Your task to perform on an android device: Search for bose soundsport free on costco.com, select the first entry, and add it to the cart. Image 0: 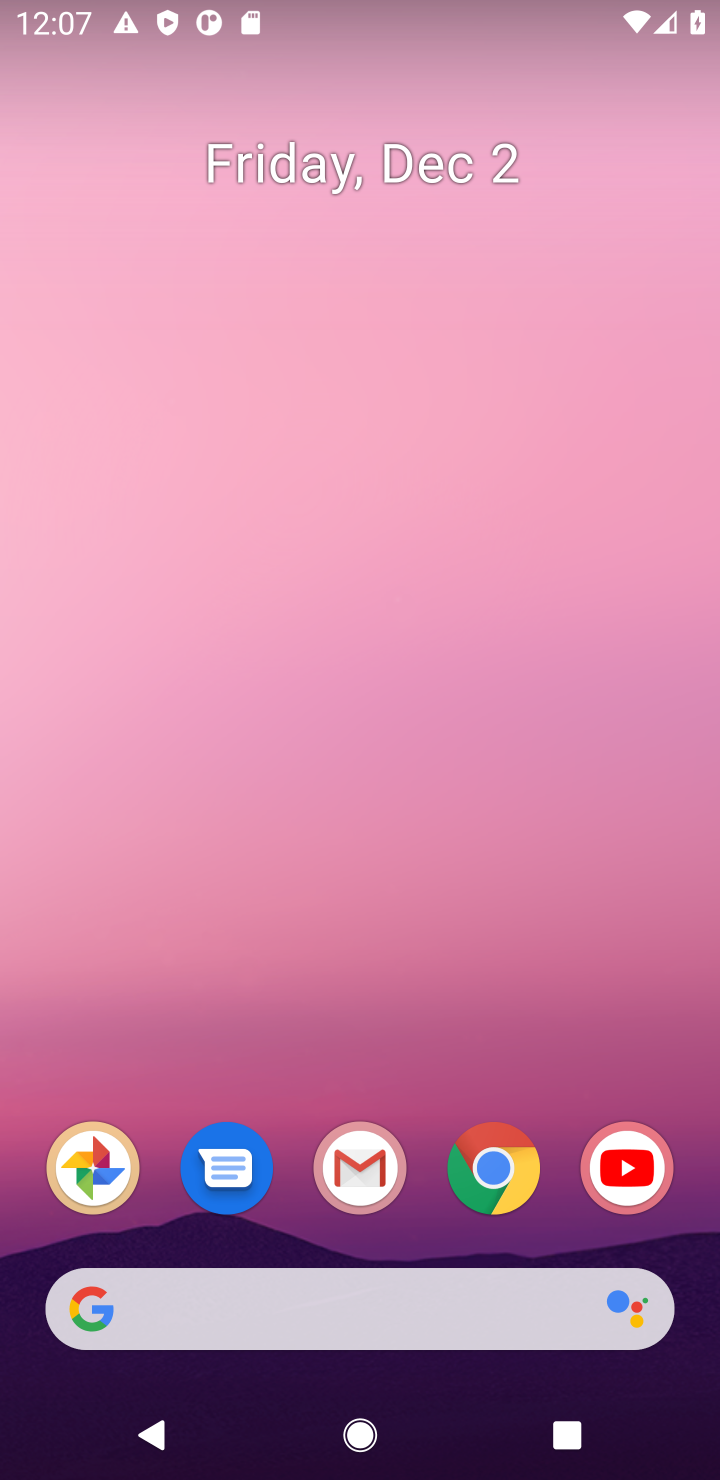
Step 0: click (94, 1316)
Your task to perform on an android device: Search for bose soundsport free on costco.com, select the first entry, and add it to the cart. Image 1: 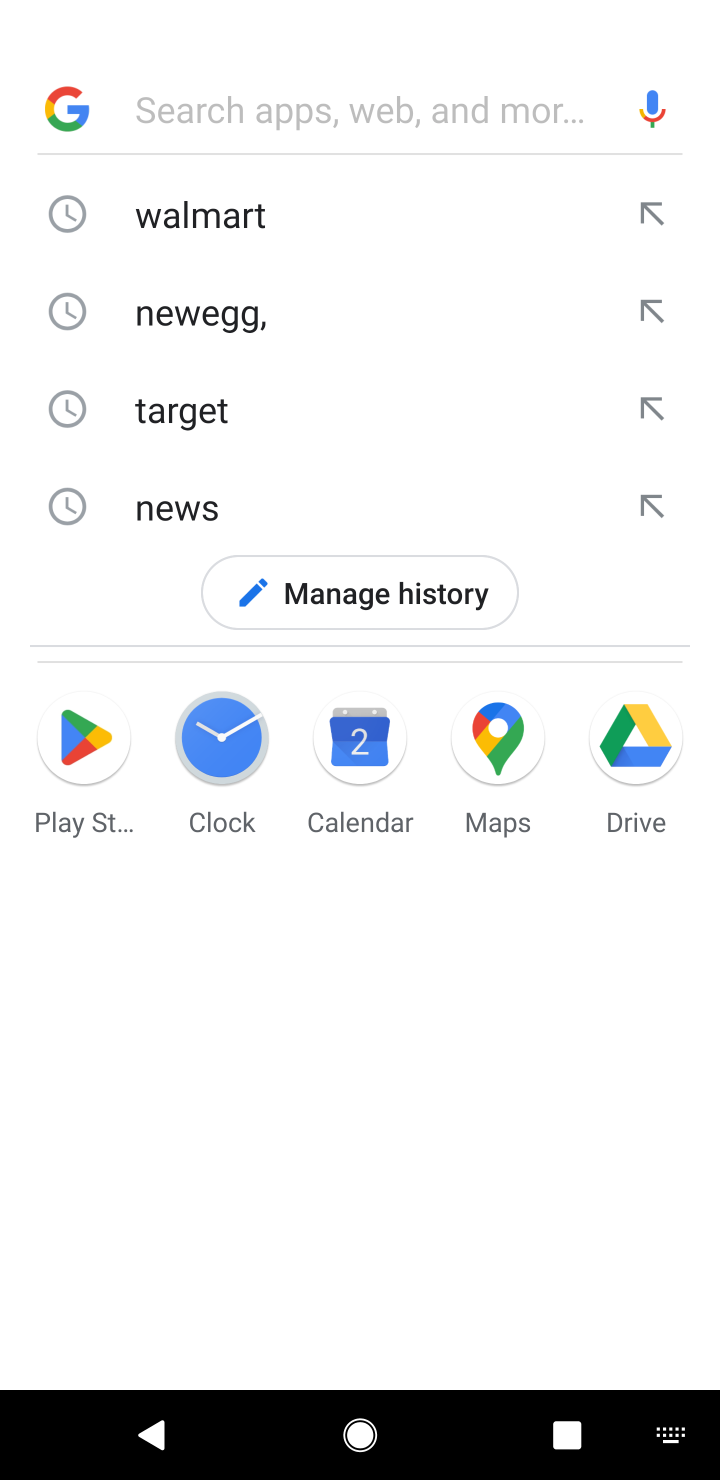
Step 1: click (398, 92)
Your task to perform on an android device: Search for bose soundsport free on costco.com, select the first entry, and add it to the cart. Image 2: 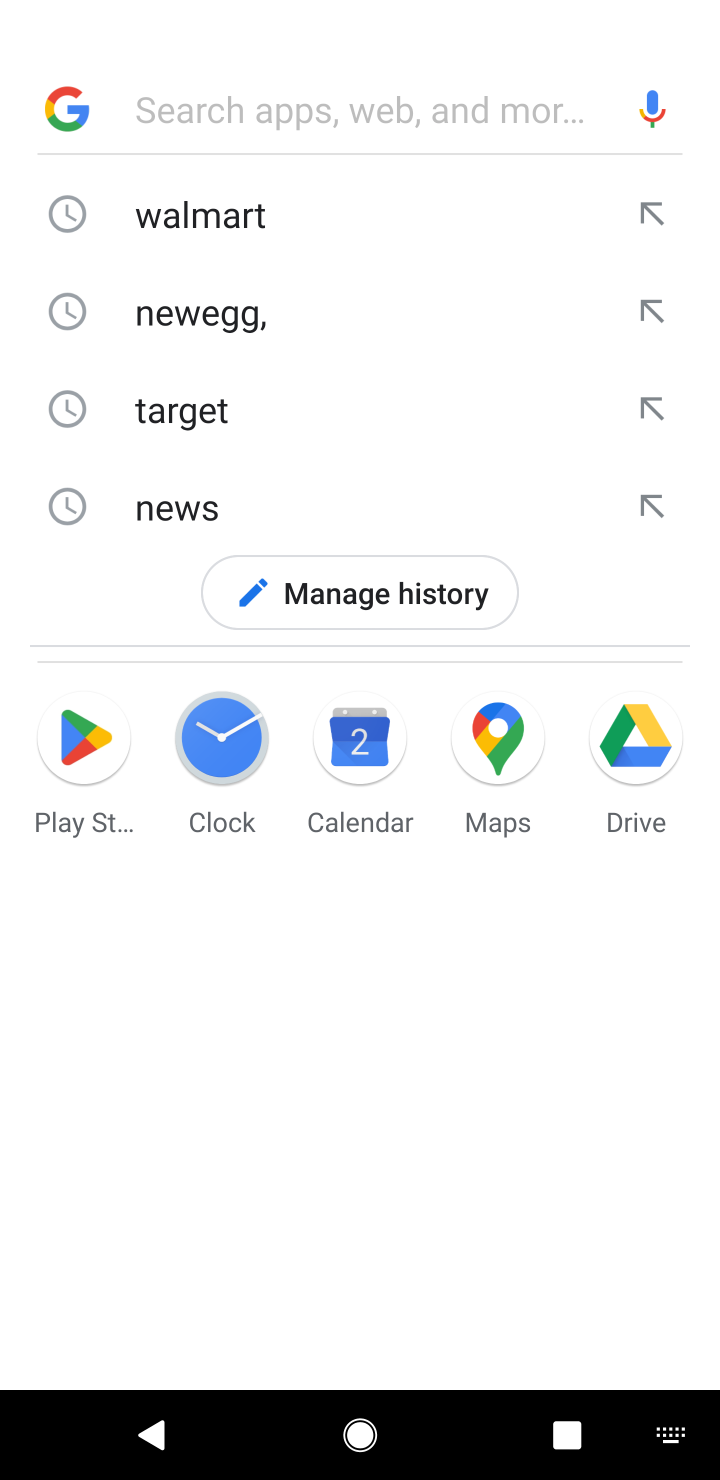
Step 2: type "costco.com"
Your task to perform on an android device: Search for bose soundsport free on costco.com, select the first entry, and add it to the cart. Image 3: 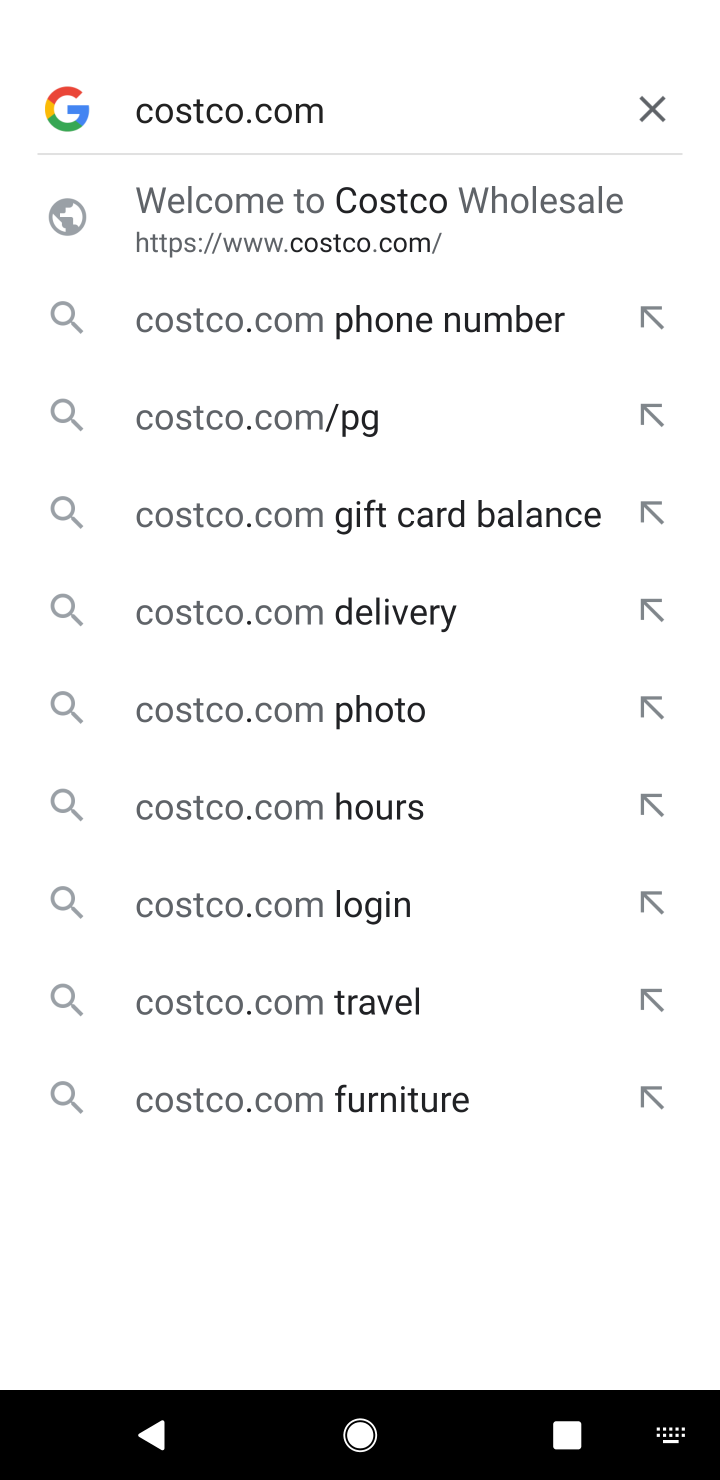
Step 3: click (409, 201)
Your task to perform on an android device: Search for bose soundsport free on costco.com, select the first entry, and add it to the cart. Image 4: 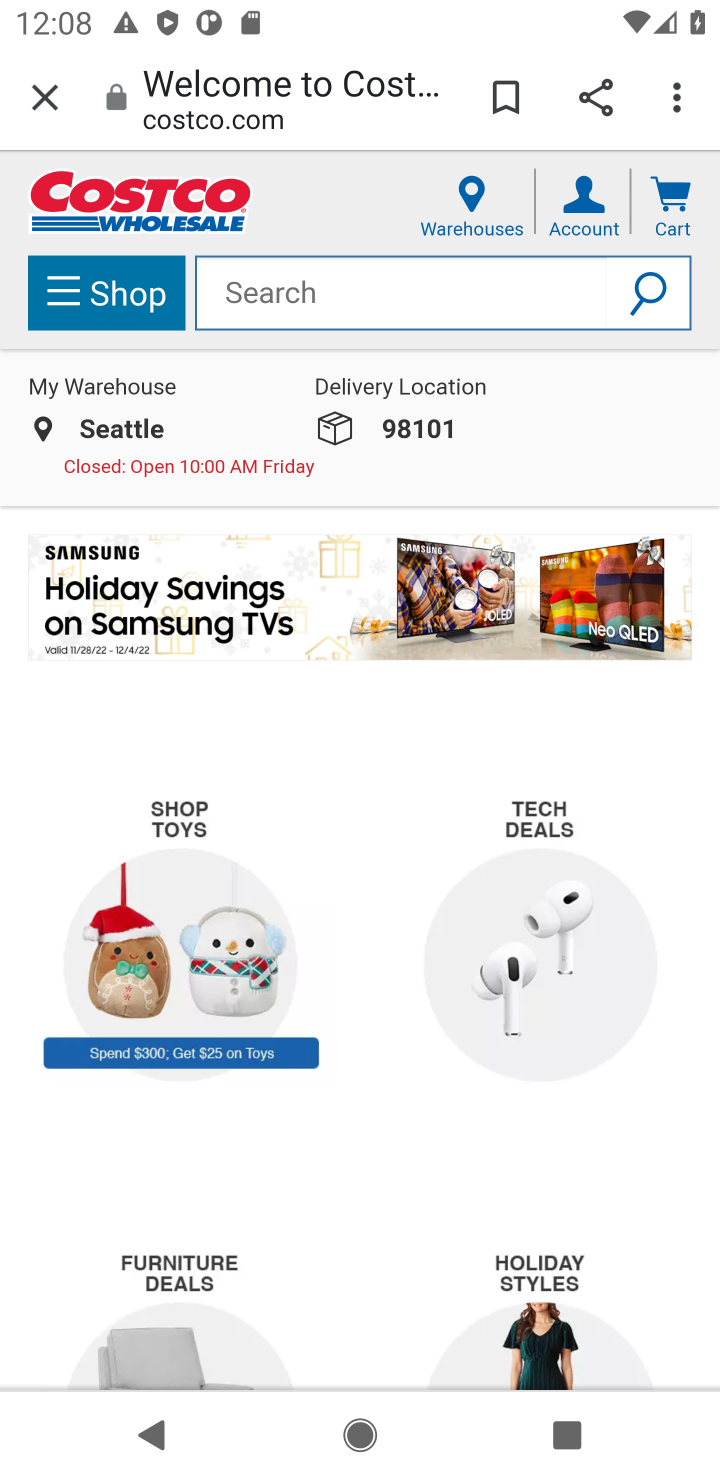
Step 4: click (652, 282)
Your task to perform on an android device: Search for bose soundsport free on costco.com, select the first entry, and add it to the cart. Image 5: 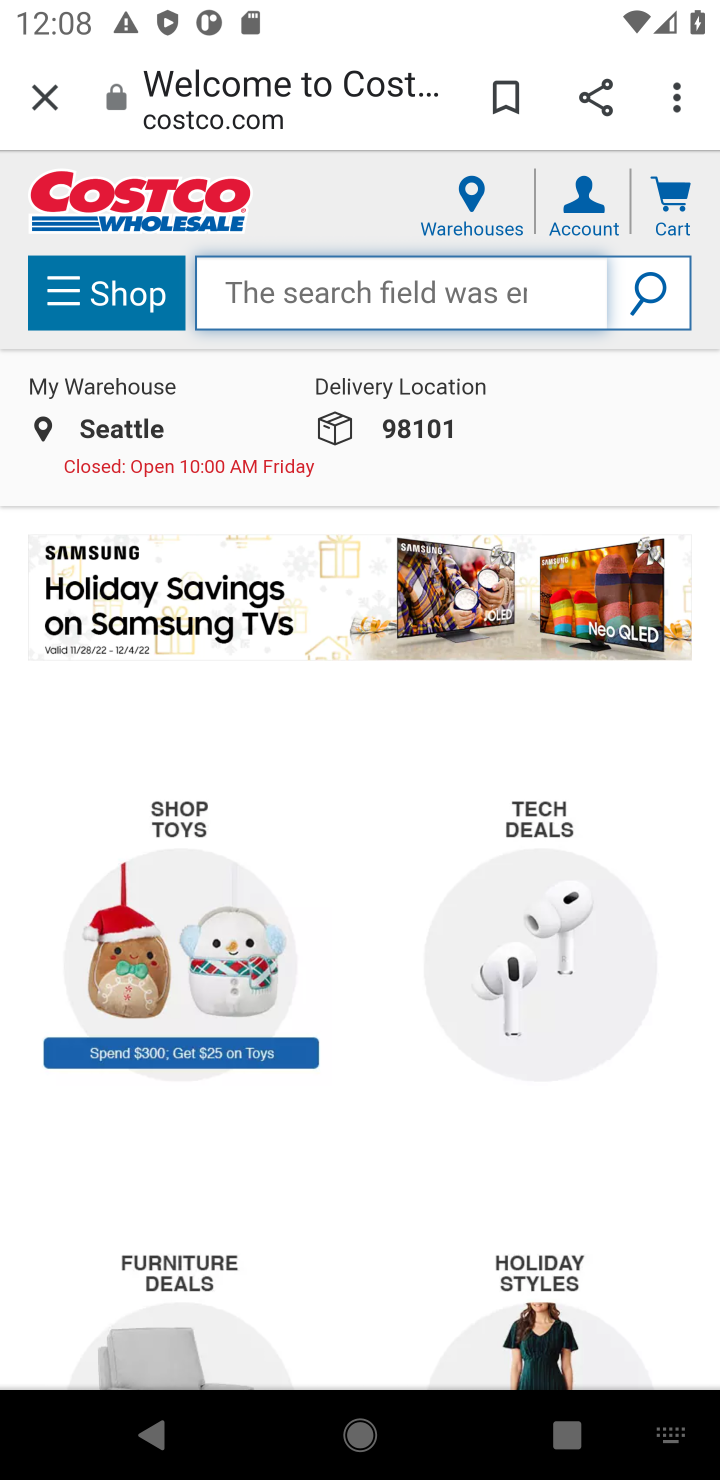
Step 5: click (444, 283)
Your task to perform on an android device: Search for bose soundsport free on costco.com, select the first entry, and add it to the cart. Image 6: 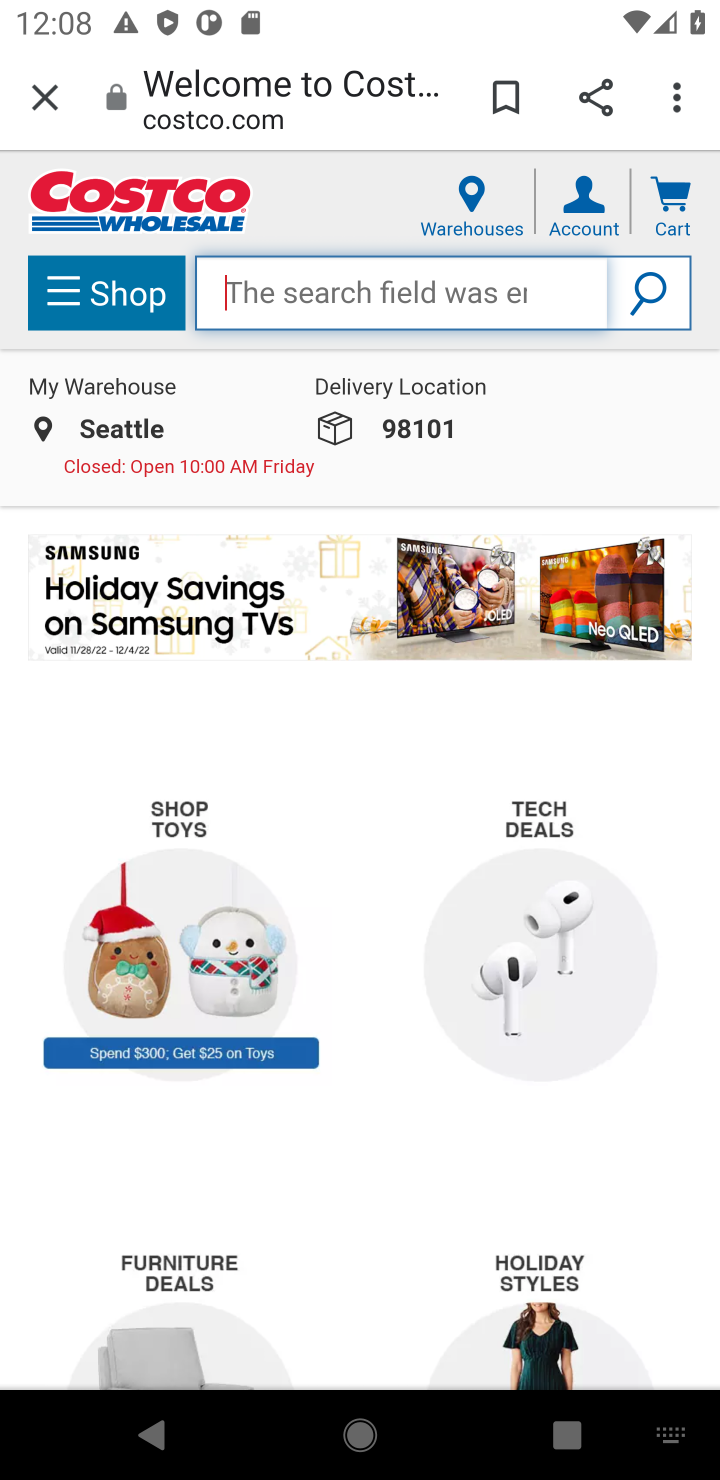
Step 6: type "bose soundsport free"
Your task to perform on an android device: Search for bose soundsport free on costco.com, select the first entry, and add it to the cart. Image 7: 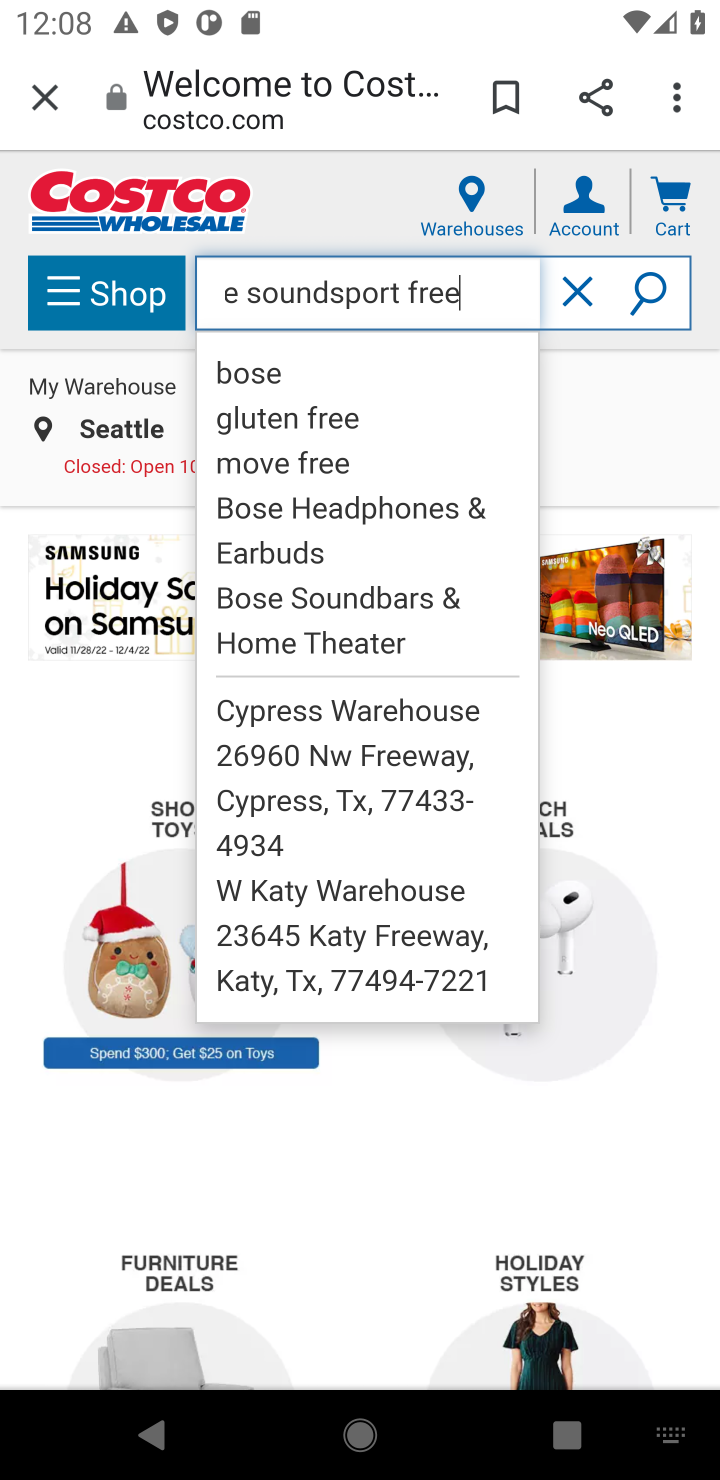
Step 7: click (272, 373)
Your task to perform on an android device: Search for bose soundsport free on costco.com, select the first entry, and add it to the cart. Image 8: 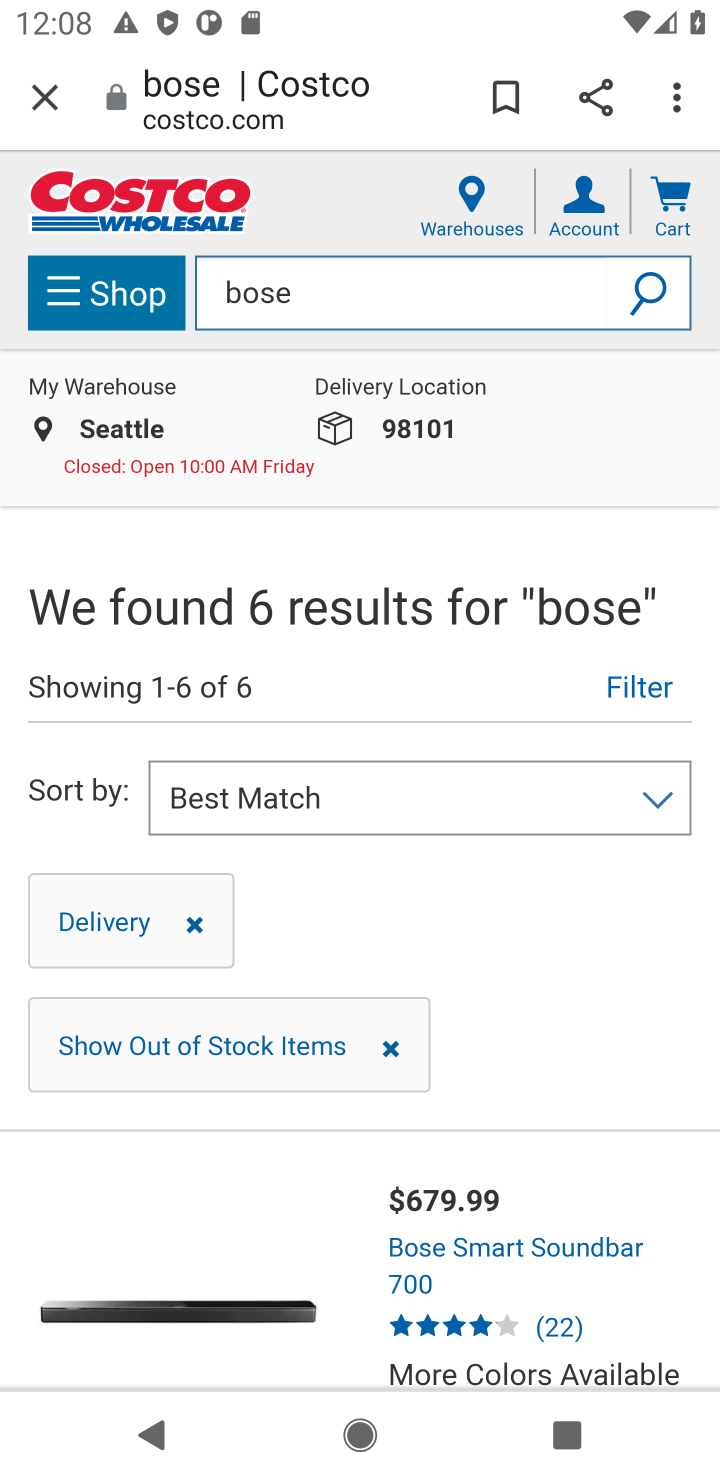
Step 8: task complete